Your task to perform on an android device: Go to sound settings Image 0: 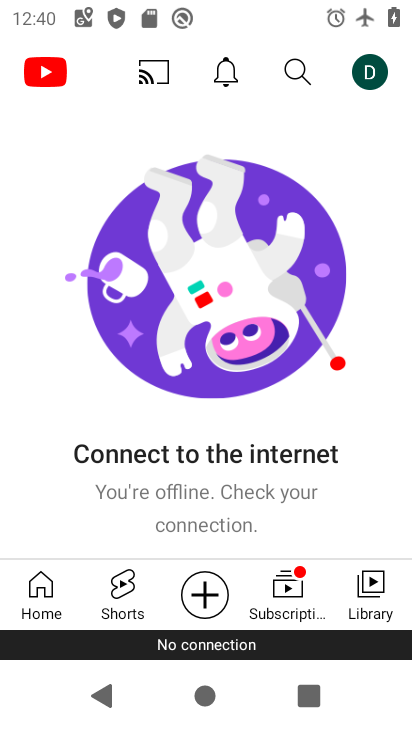
Step 0: press home button
Your task to perform on an android device: Go to sound settings Image 1: 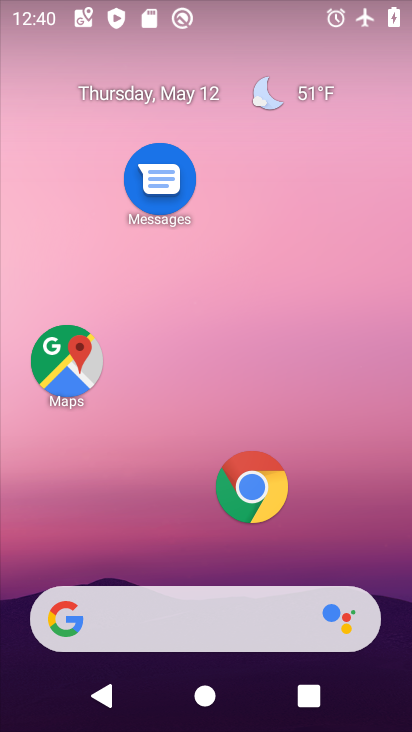
Step 1: drag from (200, 530) to (202, 168)
Your task to perform on an android device: Go to sound settings Image 2: 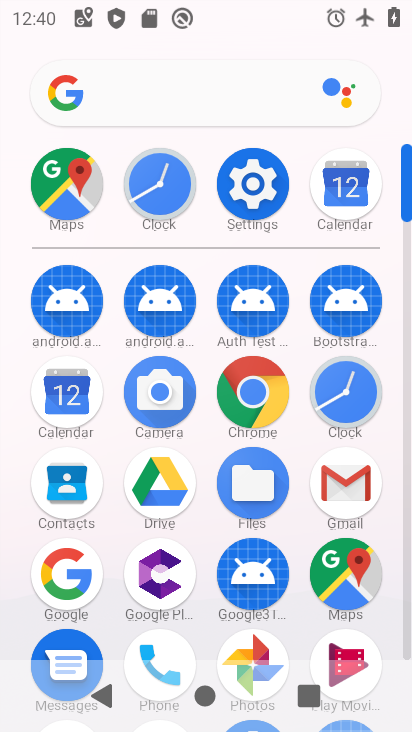
Step 2: click (237, 195)
Your task to perform on an android device: Go to sound settings Image 3: 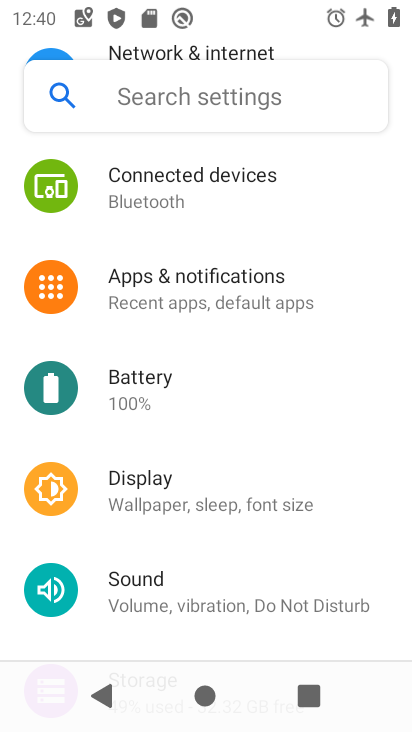
Step 3: click (210, 610)
Your task to perform on an android device: Go to sound settings Image 4: 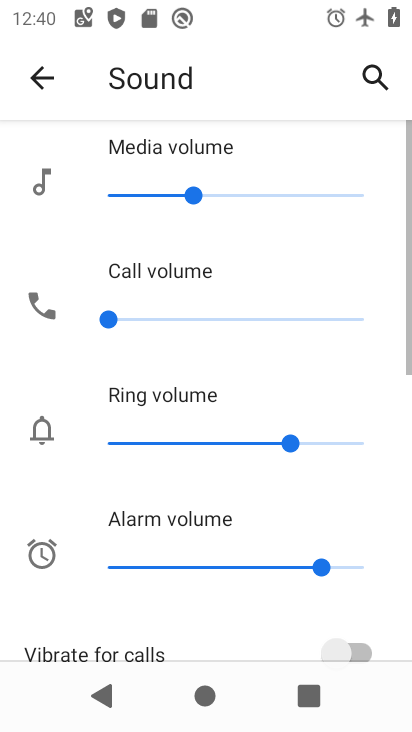
Step 4: task complete